Your task to perform on an android device: Check the weather Image 0: 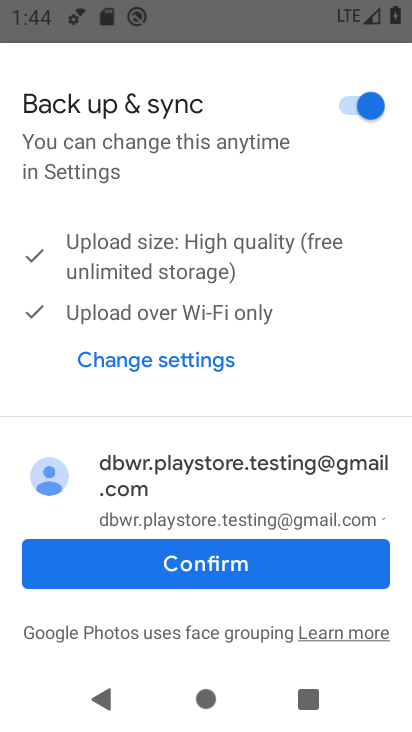
Step 0: press home button
Your task to perform on an android device: Check the weather Image 1: 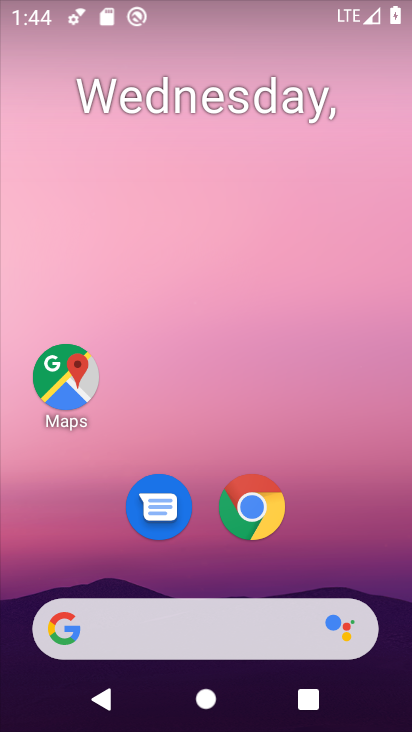
Step 1: click (163, 631)
Your task to perform on an android device: Check the weather Image 2: 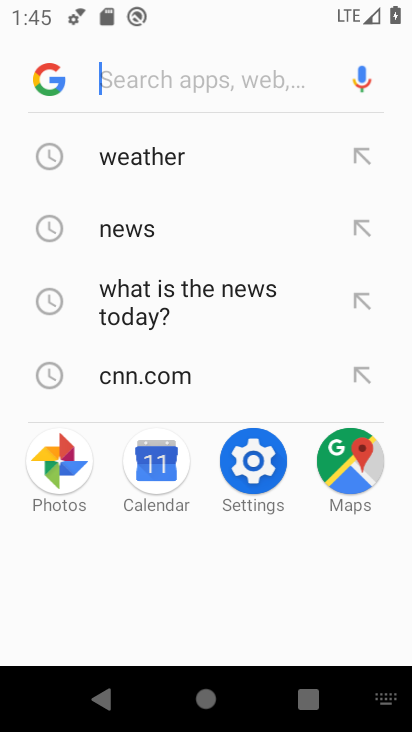
Step 2: type "weather"
Your task to perform on an android device: Check the weather Image 3: 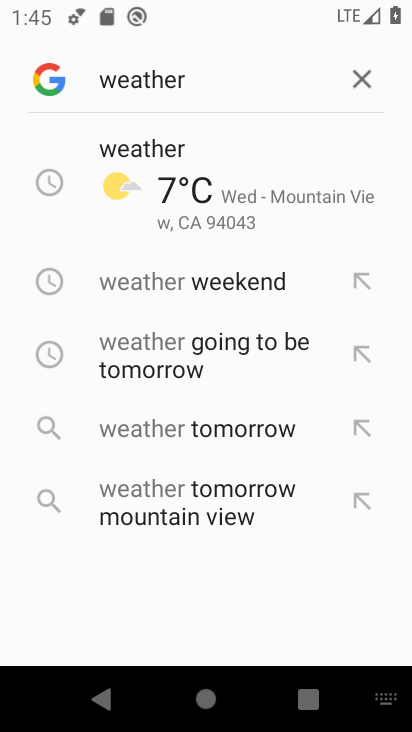
Step 3: click (221, 180)
Your task to perform on an android device: Check the weather Image 4: 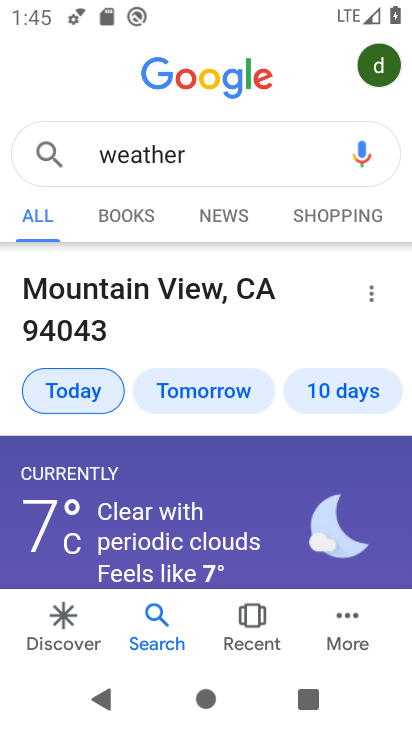
Step 4: task complete